Your task to perform on an android device: open the mobile data screen to see how much data has been used Image 0: 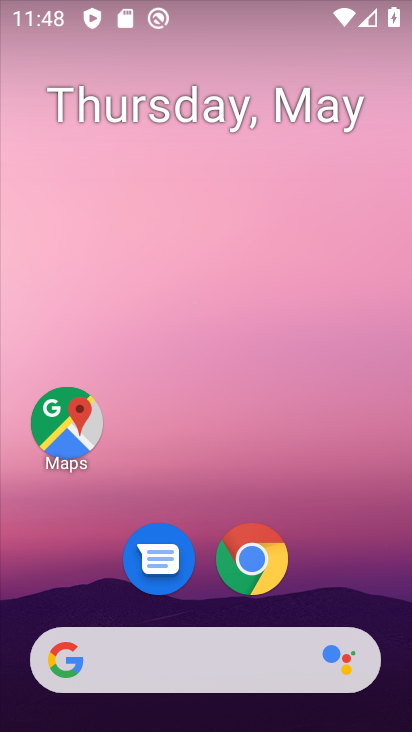
Step 0: drag from (191, 597) to (120, 717)
Your task to perform on an android device: open the mobile data screen to see how much data has been used Image 1: 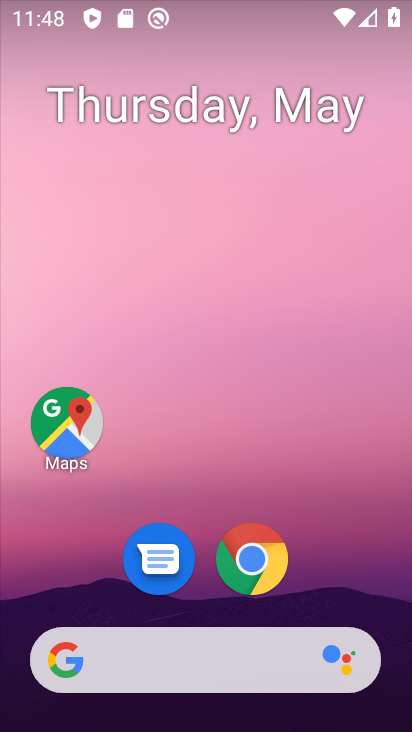
Step 1: drag from (166, 542) to (346, 102)
Your task to perform on an android device: open the mobile data screen to see how much data has been used Image 2: 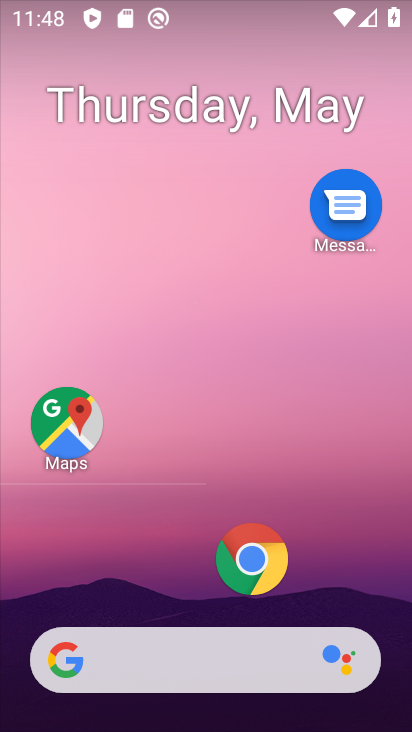
Step 2: drag from (209, 691) to (277, 32)
Your task to perform on an android device: open the mobile data screen to see how much data has been used Image 3: 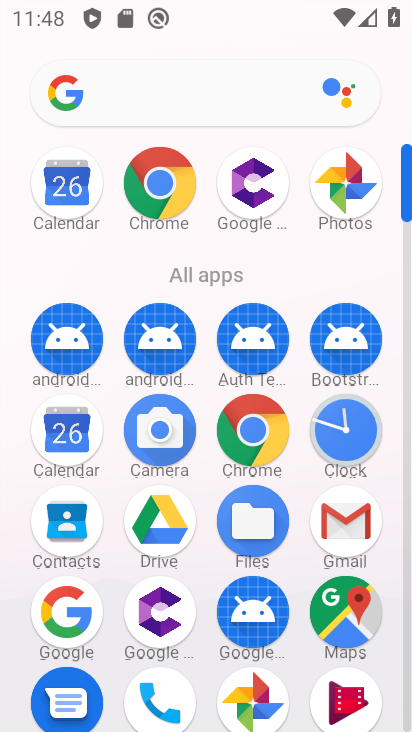
Step 3: drag from (256, 517) to (296, 134)
Your task to perform on an android device: open the mobile data screen to see how much data has been used Image 4: 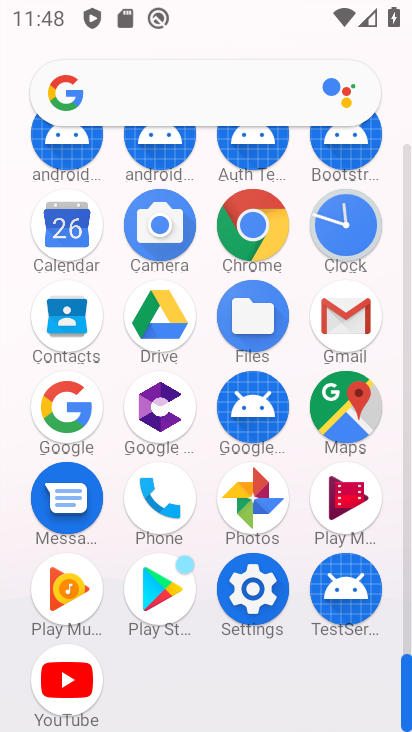
Step 4: drag from (243, 502) to (325, 172)
Your task to perform on an android device: open the mobile data screen to see how much data has been used Image 5: 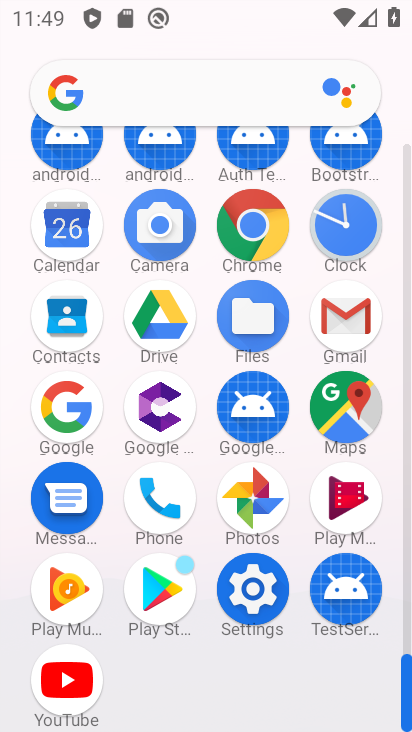
Step 5: click (241, 579)
Your task to perform on an android device: open the mobile data screen to see how much data has been used Image 6: 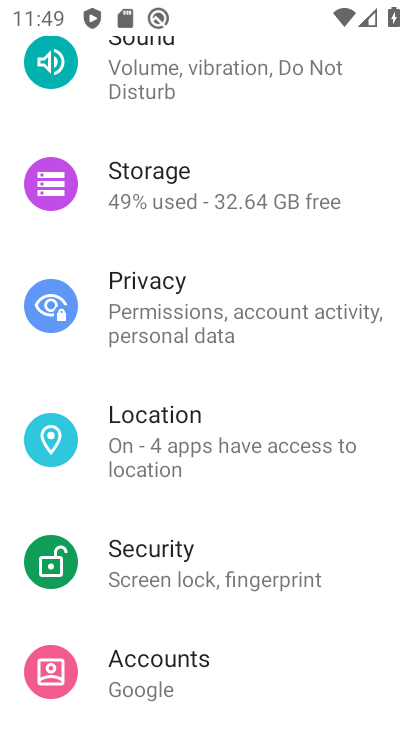
Step 6: drag from (220, 192) to (207, 722)
Your task to perform on an android device: open the mobile data screen to see how much data has been used Image 7: 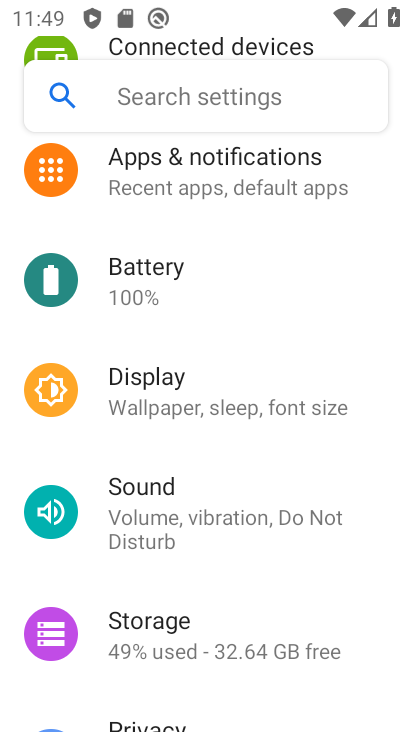
Step 7: drag from (206, 238) to (181, 717)
Your task to perform on an android device: open the mobile data screen to see how much data has been used Image 8: 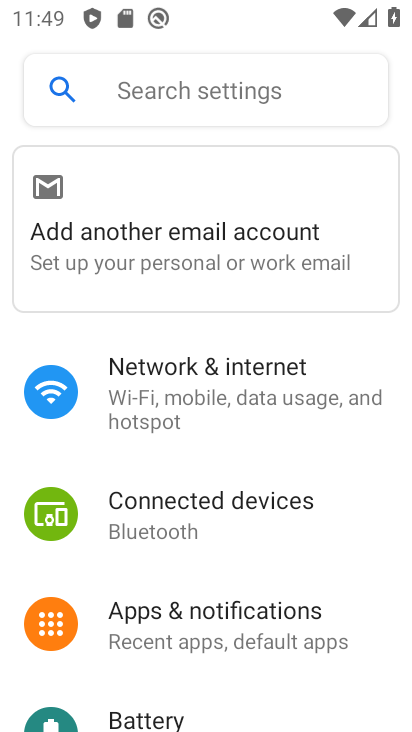
Step 8: click (255, 382)
Your task to perform on an android device: open the mobile data screen to see how much data has been used Image 9: 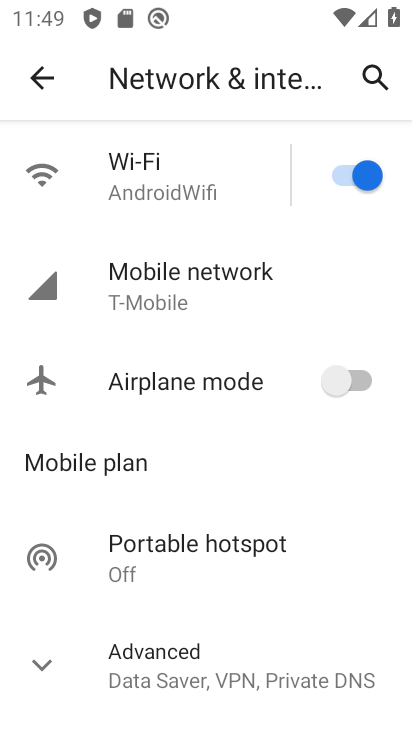
Step 9: click (225, 293)
Your task to perform on an android device: open the mobile data screen to see how much data has been used Image 10: 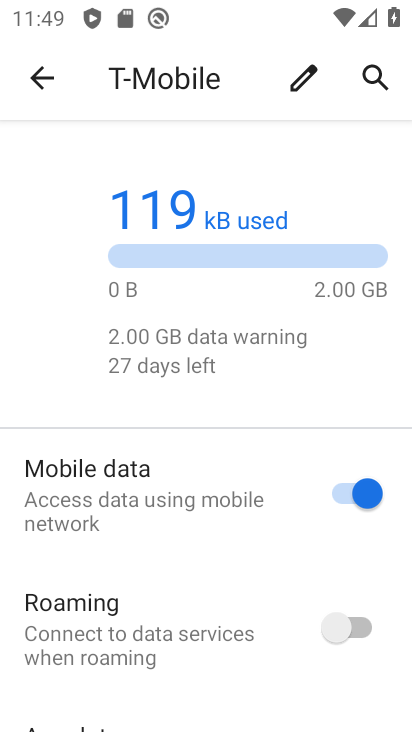
Step 10: drag from (155, 535) to (212, 31)
Your task to perform on an android device: open the mobile data screen to see how much data has been used Image 11: 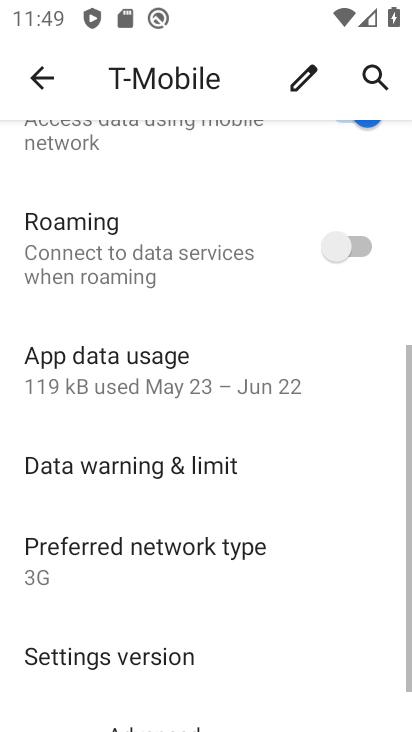
Step 11: click (203, 403)
Your task to perform on an android device: open the mobile data screen to see how much data has been used Image 12: 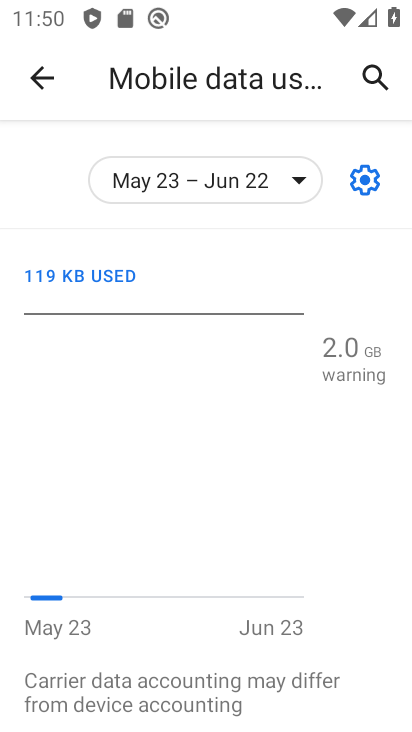
Step 12: task complete